Your task to perform on an android device: Go to Google maps Image 0: 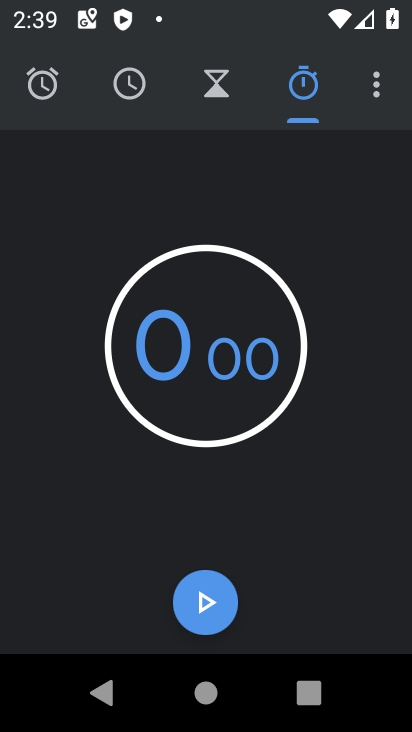
Step 0: press home button
Your task to perform on an android device: Go to Google maps Image 1: 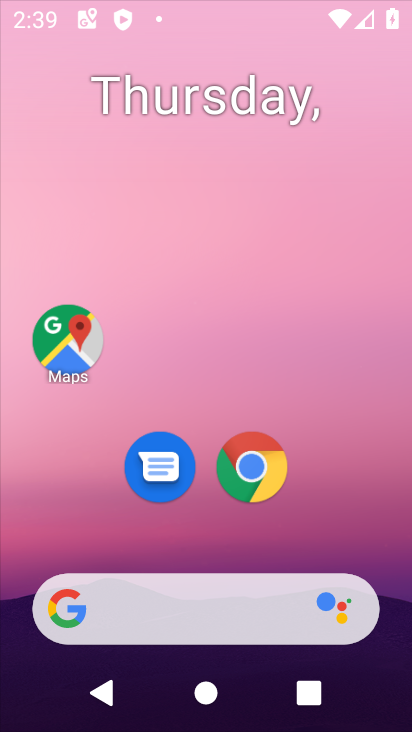
Step 1: drag from (170, 569) to (249, 238)
Your task to perform on an android device: Go to Google maps Image 2: 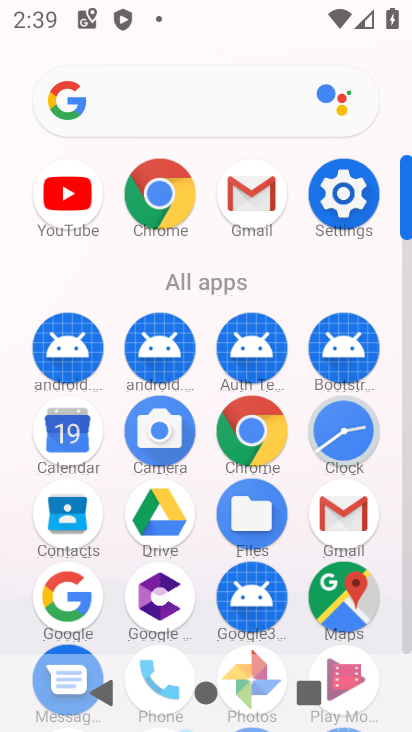
Step 2: click (368, 590)
Your task to perform on an android device: Go to Google maps Image 3: 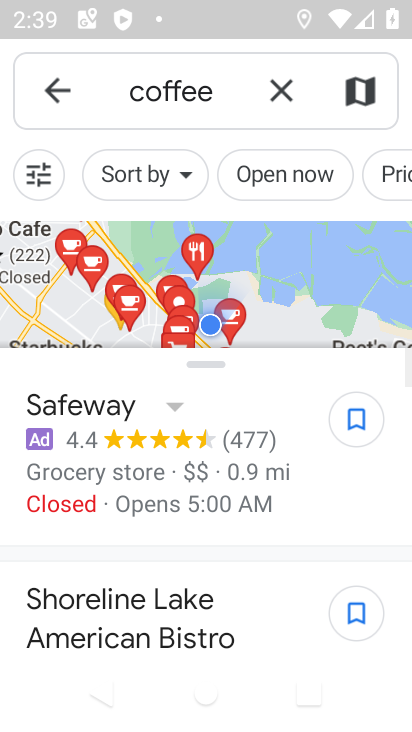
Step 3: task complete